Your task to perform on an android device: Search for Mexican restaurants on Maps Image 0: 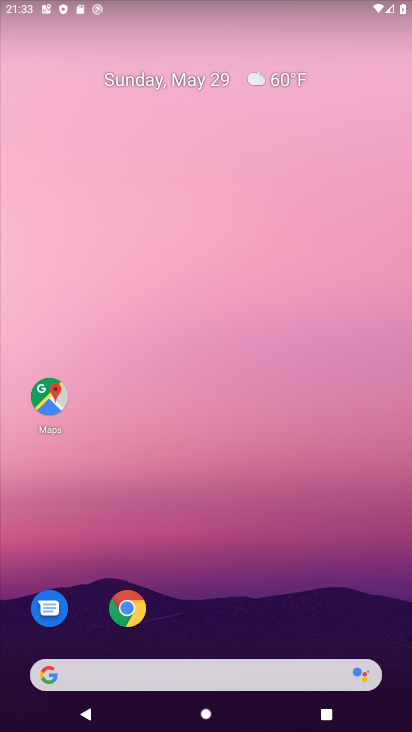
Step 0: drag from (331, 609) to (353, 207)
Your task to perform on an android device: Search for Mexican restaurants on Maps Image 1: 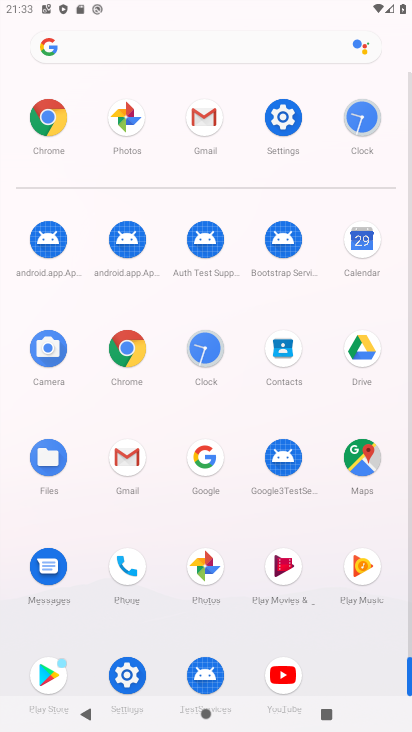
Step 1: click (365, 456)
Your task to perform on an android device: Search for Mexican restaurants on Maps Image 2: 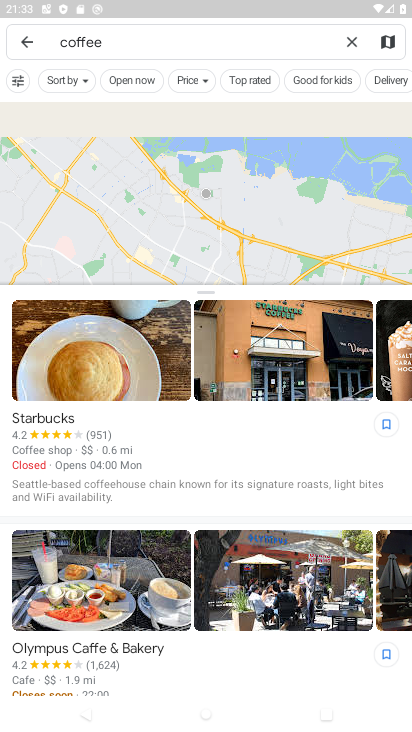
Step 2: click (351, 41)
Your task to perform on an android device: Search for Mexican restaurants on Maps Image 3: 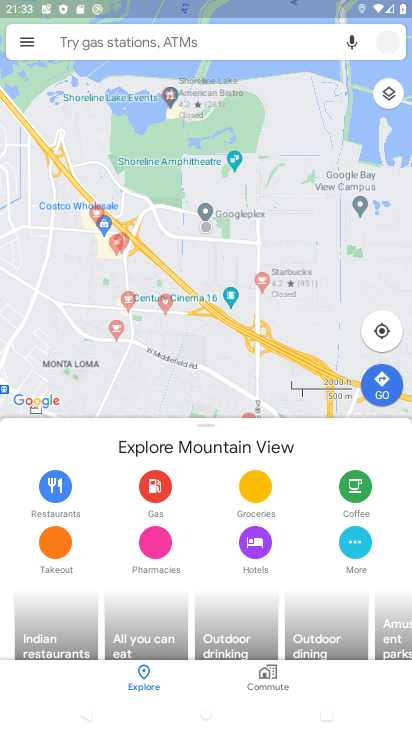
Step 3: click (213, 36)
Your task to perform on an android device: Search for Mexican restaurants on Maps Image 4: 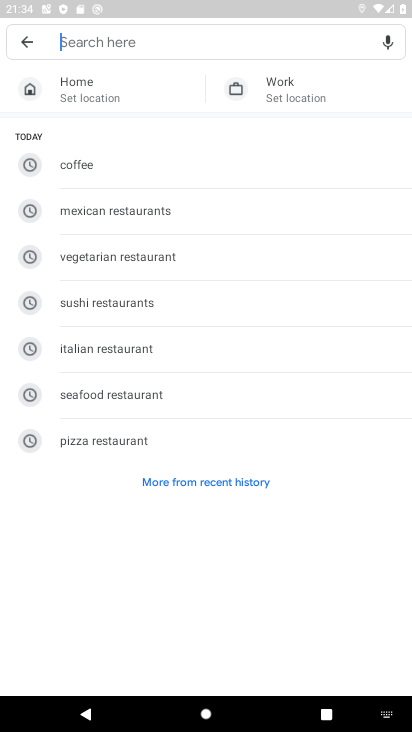
Step 4: type "mexcian restaurants"
Your task to perform on an android device: Search for Mexican restaurants on Maps Image 5: 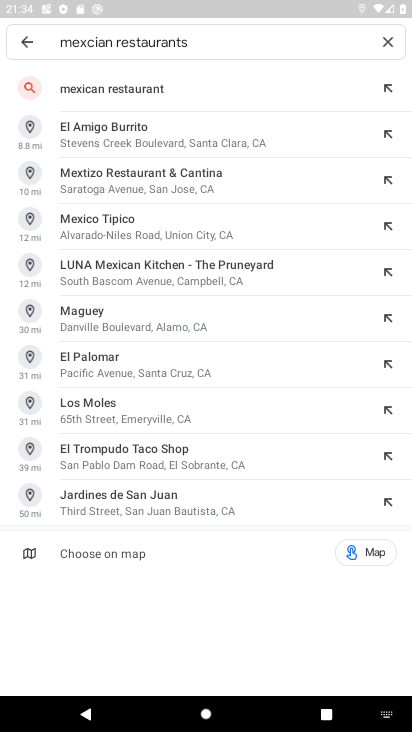
Step 5: click (170, 92)
Your task to perform on an android device: Search for Mexican restaurants on Maps Image 6: 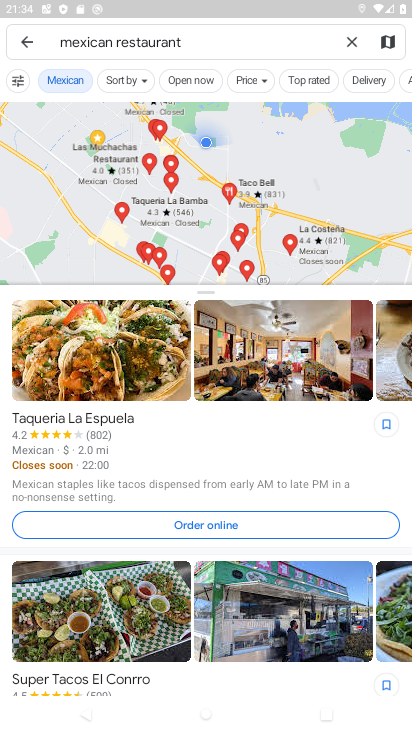
Step 6: task complete